Your task to perform on an android device: Toggle the flashlight Image 0: 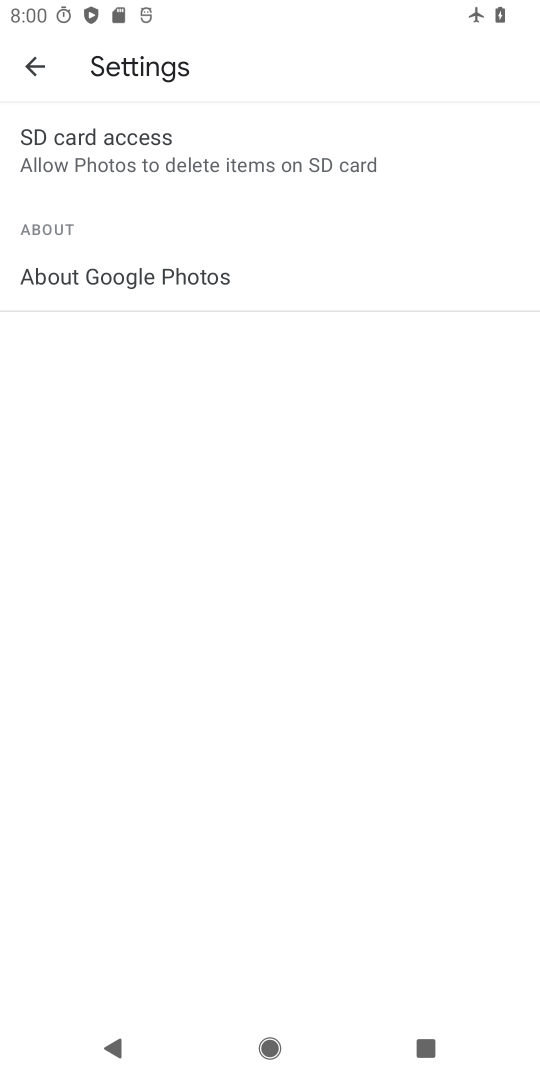
Step 0: press home button
Your task to perform on an android device: Toggle the flashlight Image 1: 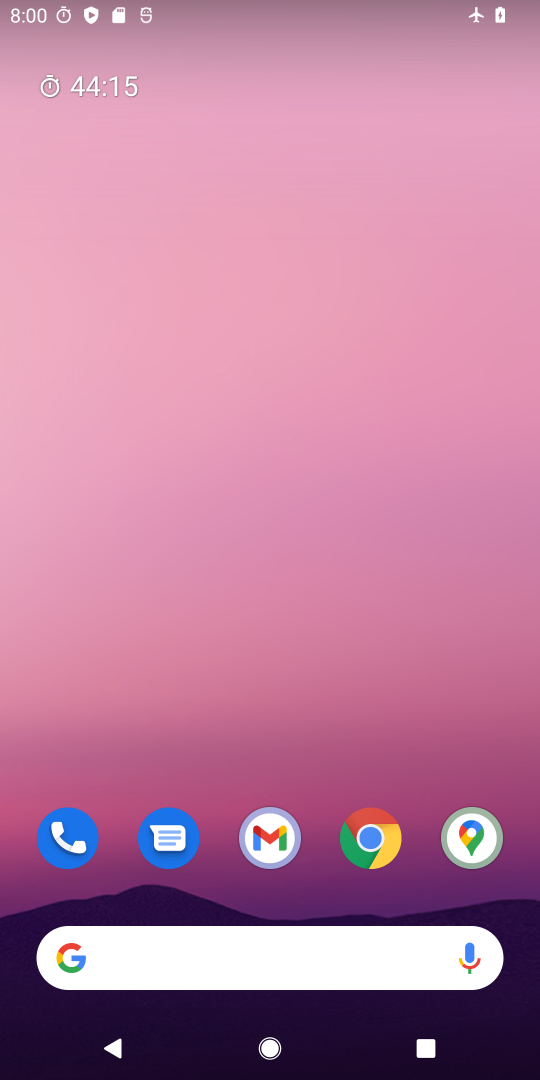
Step 1: drag from (198, 860) to (194, 164)
Your task to perform on an android device: Toggle the flashlight Image 2: 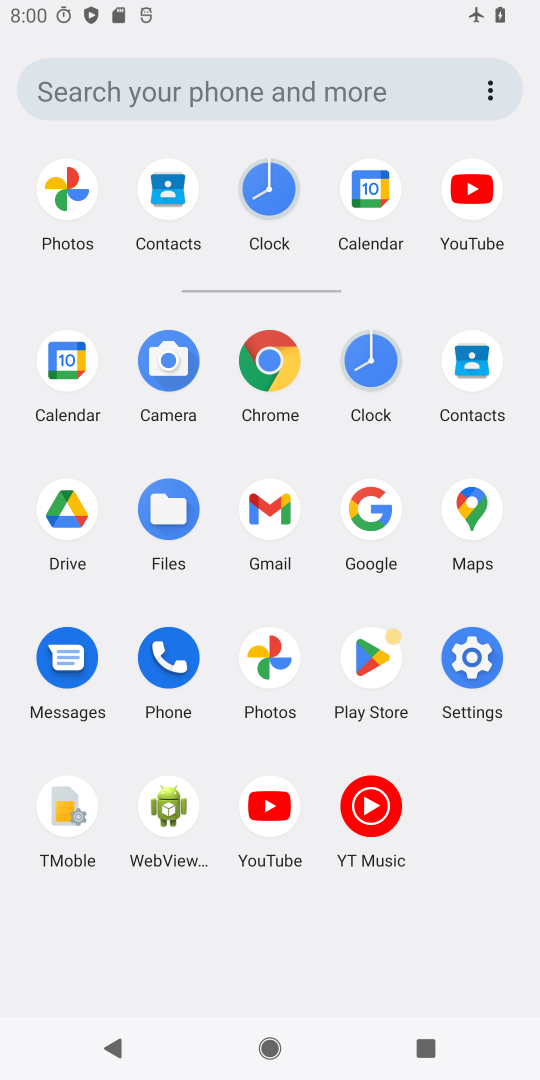
Step 2: drag from (167, 1) to (304, 577)
Your task to perform on an android device: Toggle the flashlight Image 3: 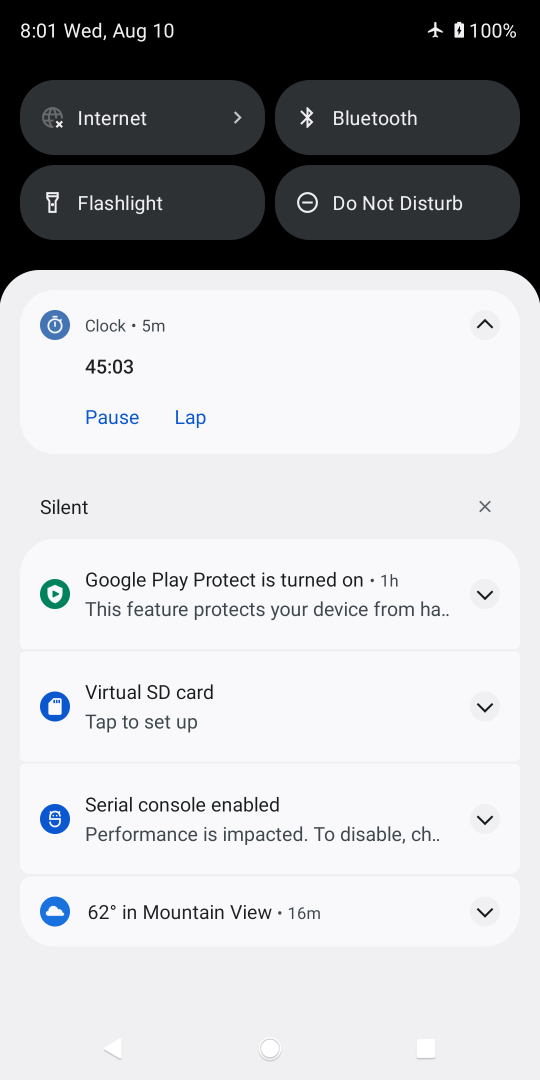
Step 3: click (89, 209)
Your task to perform on an android device: Toggle the flashlight Image 4: 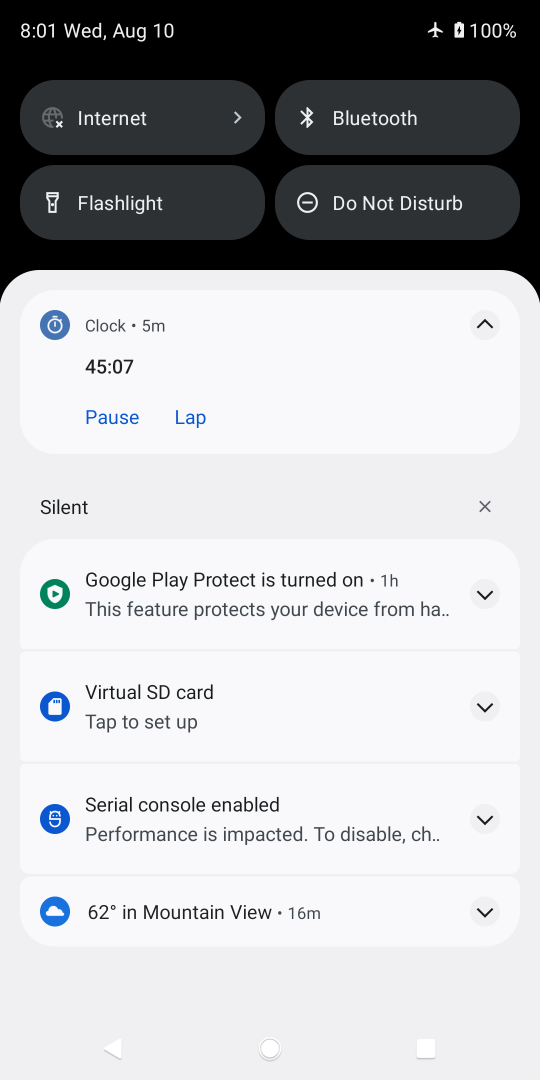
Step 4: click (134, 213)
Your task to perform on an android device: Toggle the flashlight Image 5: 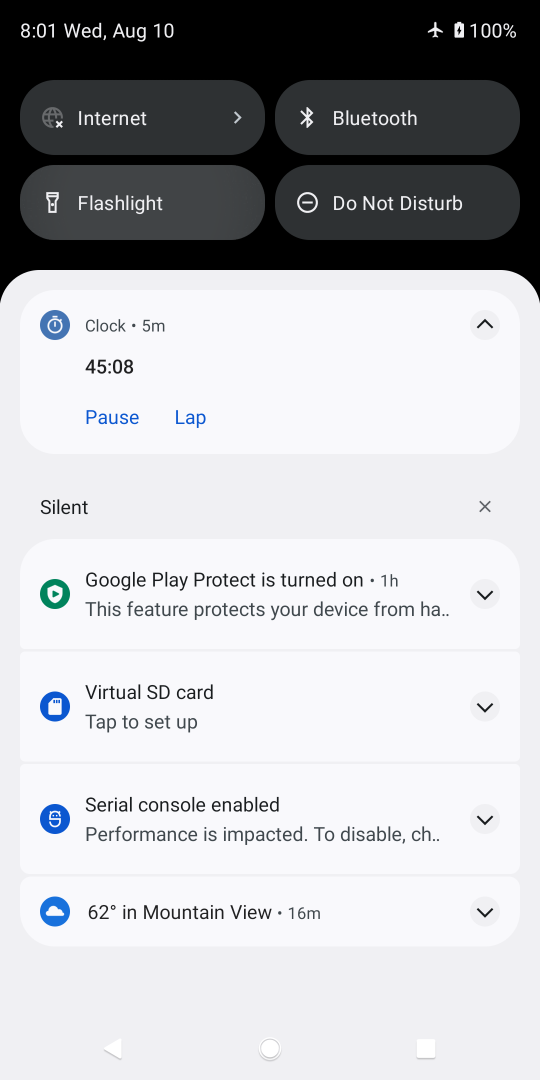
Step 5: click (134, 213)
Your task to perform on an android device: Toggle the flashlight Image 6: 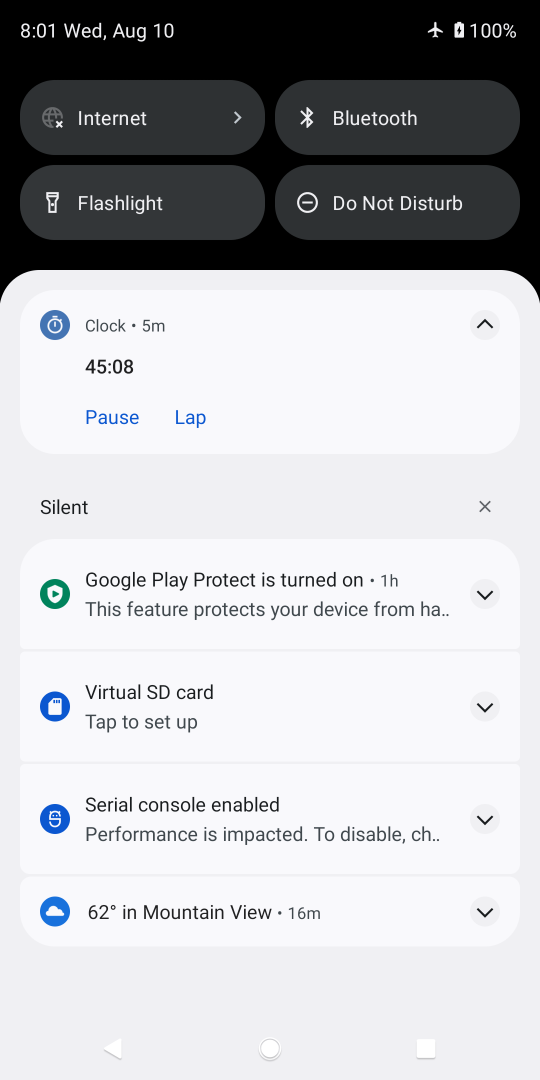
Step 6: click (134, 213)
Your task to perform on an android device: Toggle the flashlight Image 7: 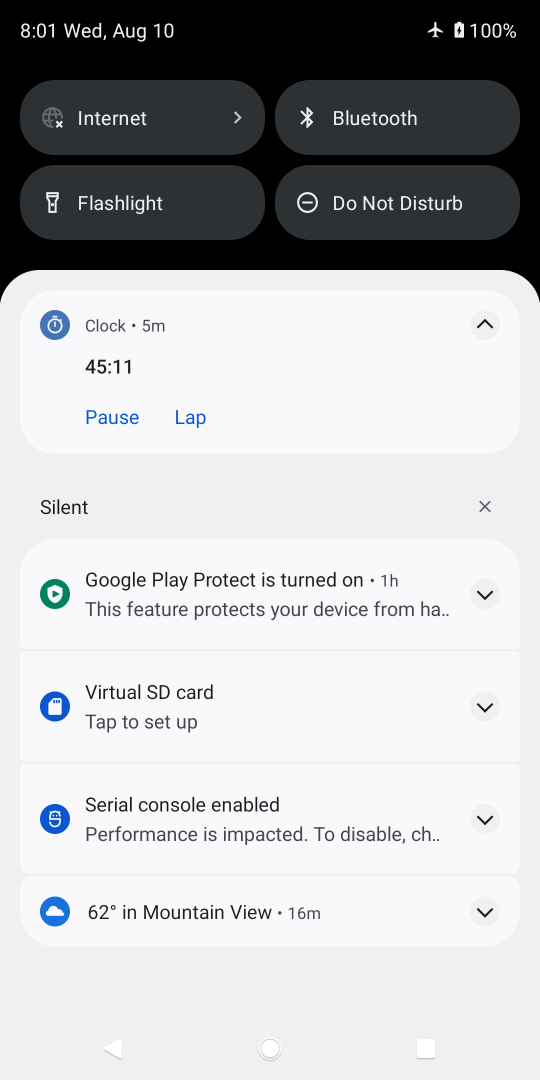
Step 7: click (134, 213)
Your task to perform on an android device: Toggle the flashlight Image 8: 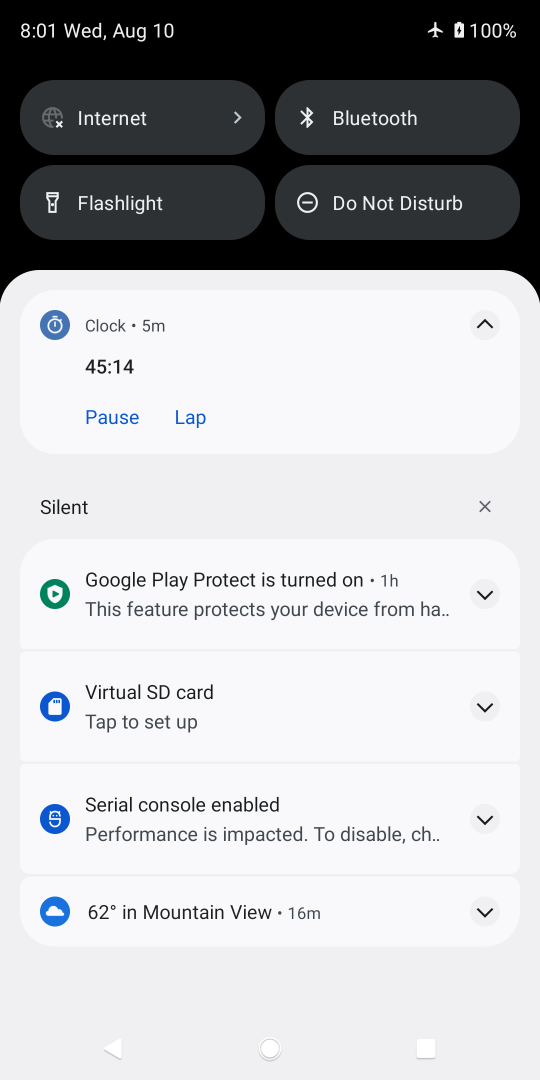
Step 8: click (142, 210)
Your task to perform on an android device: Toggle the flashlight Image 9: 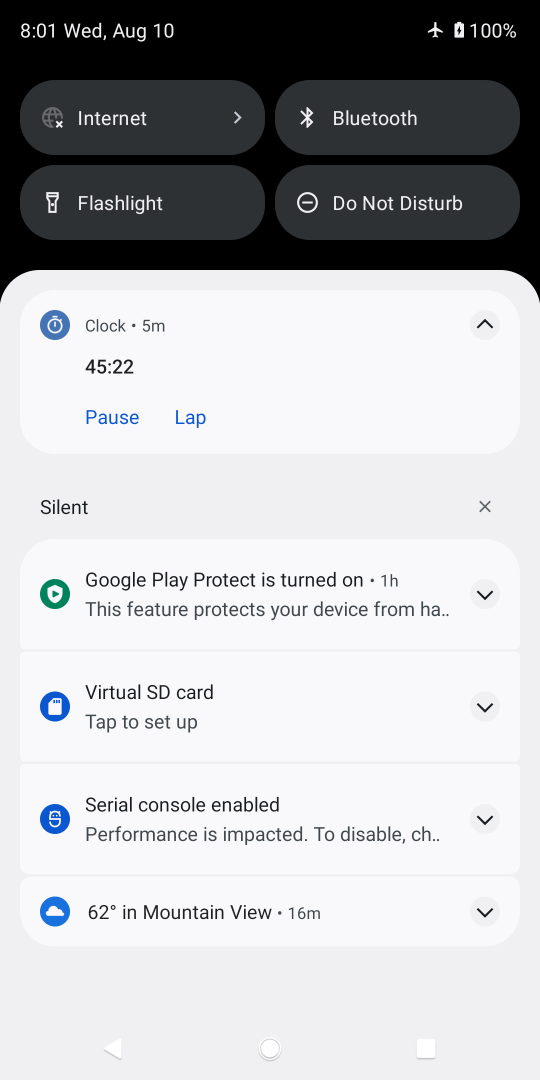
Step 9: click (106, 202)
Your task to perform on an android device: Toggle the flashlight Image 10: 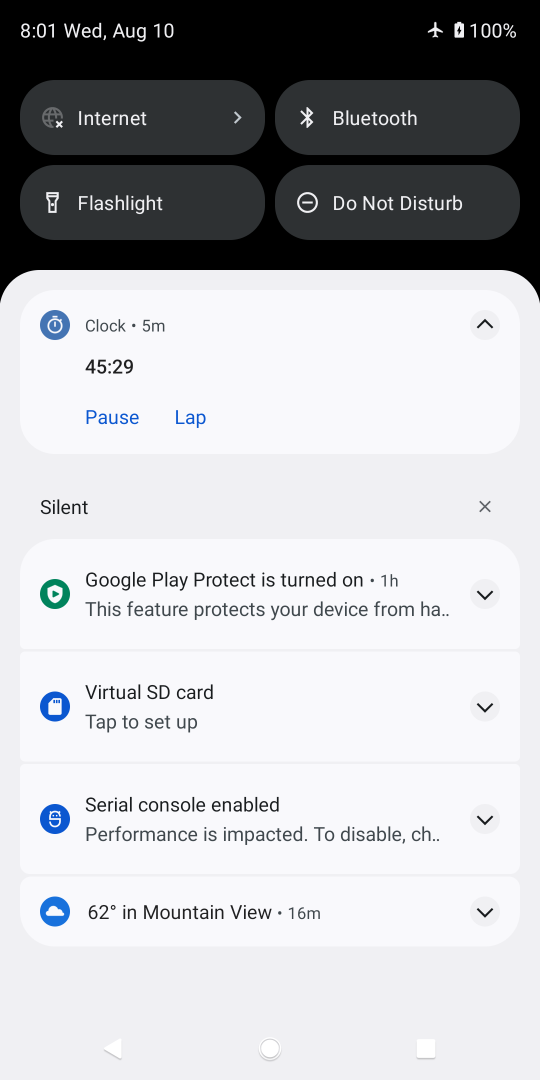
Step 10: task complete